Your task to perform on an android device: turn on airplane mode Image 0: 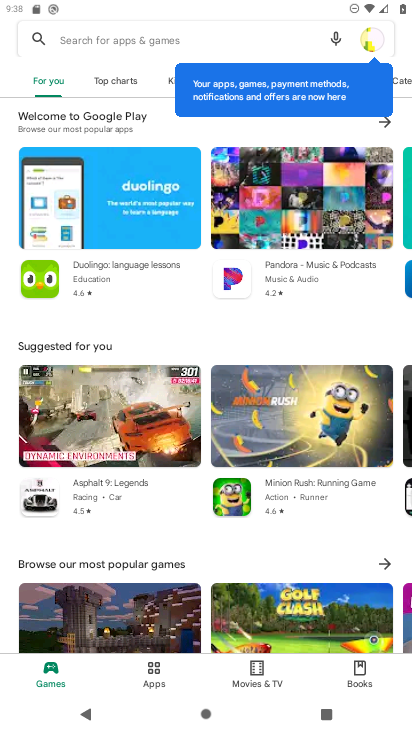
Step 0: press home button
Your task to perform on an android device: turn on airplane mode Image 1: 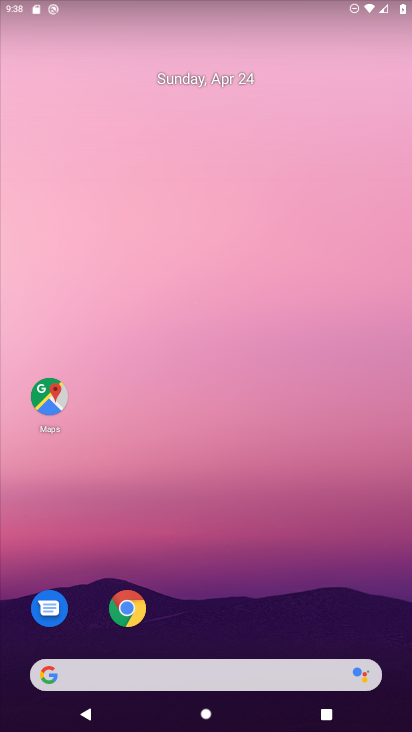
Step 1: drag from (216, 633) to (226, 90)
Your task to perform on an android device: turn on airplane mode Image 2: 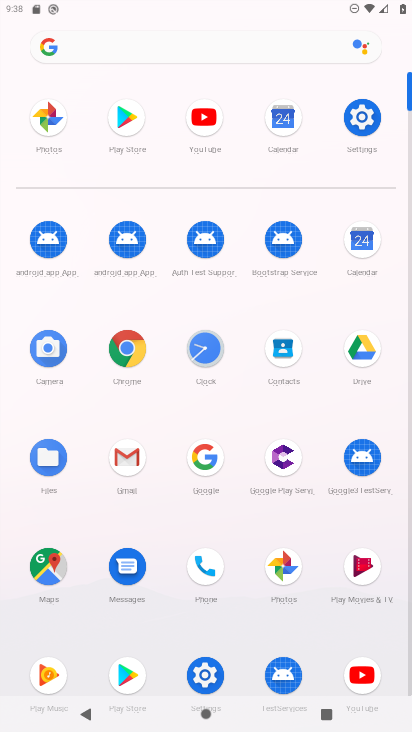
Step 2: click (355, 118)
Your task to perform on an android device: turn on airplane mode Image 3: 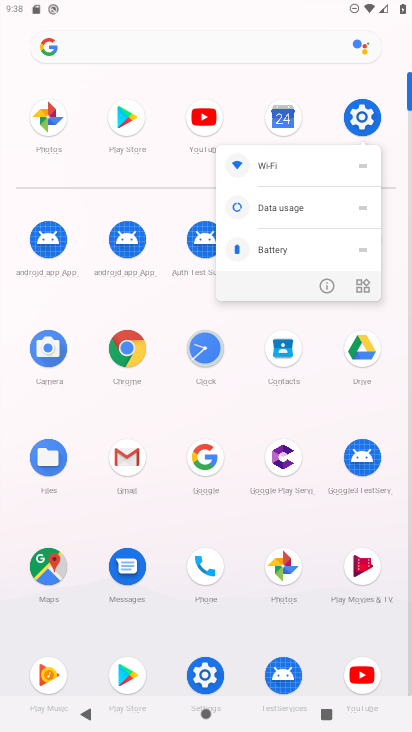
Step 3: click (355, 118)
Your task to perform on an android device: turn on airplane mode Image 4: 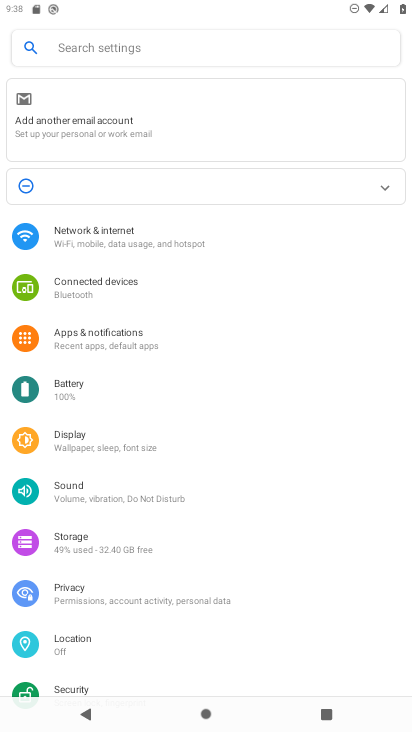
Step 4: click (155, 233)
Your task to perform on an android device: turn on airplane mode Image 5: 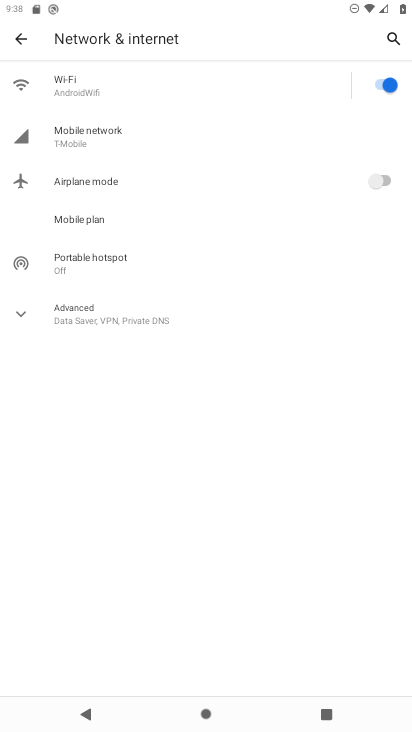
Step 5: click (392, 181)
Your task to perform on an android device: turn on airplane mode Image 6: 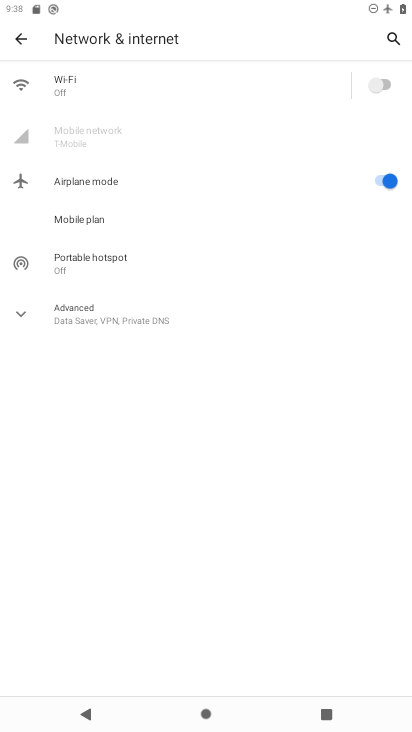
Step 6: task complete